Your task to perform on an android device: open chrome and create a bookmark for the current page Image 0: 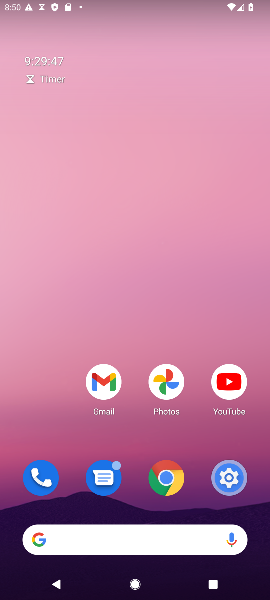
Step 0: click (165, 469)
Your task to perform on an android device: open chrome and create a bookmark for the current page Image 1: 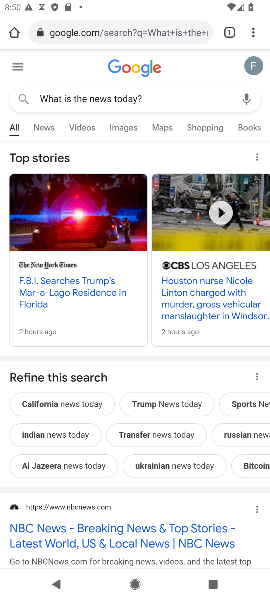
Step 1: click (250, 33)
Your task to perform on an android device: open chrome and create a bookmark for the current page Image 2: 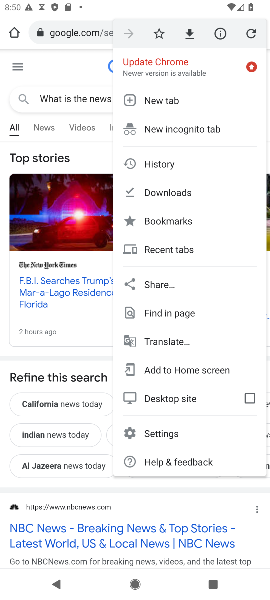
Step 2: click (163, 33)
Your task to perform on an android device: open chrome and create a bookmark for the current page Image 3: 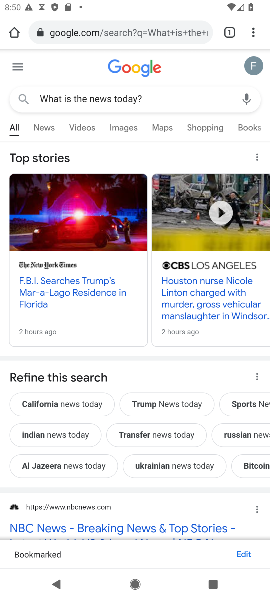
Step 3: task complete